Your task to perform on an android device: find which apps use the phone's location Image 0: 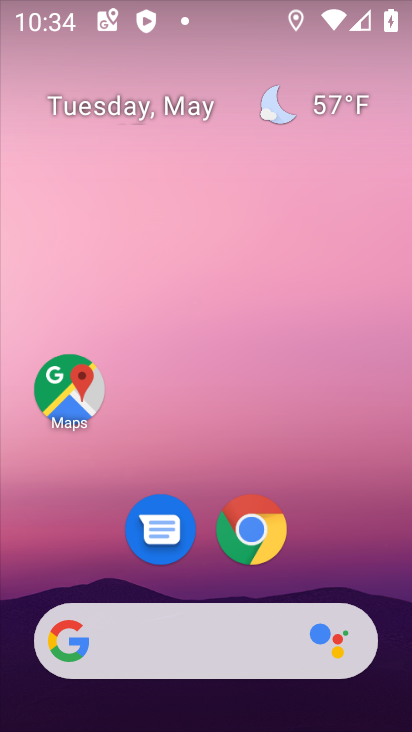
Step 0: drag from (216, 582) to (239, 40)
Your task to perform on an android device: find which apps use the phone's location Image 1: 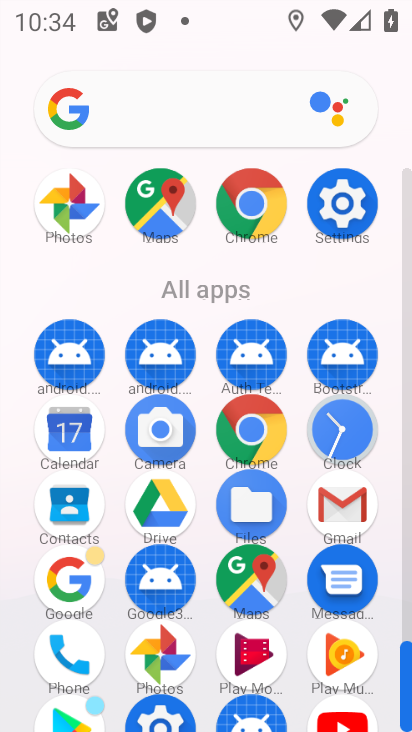
Step 1: click (354, 199)
Your task to perform on an android device: find which apps use the phone's location Image 2: 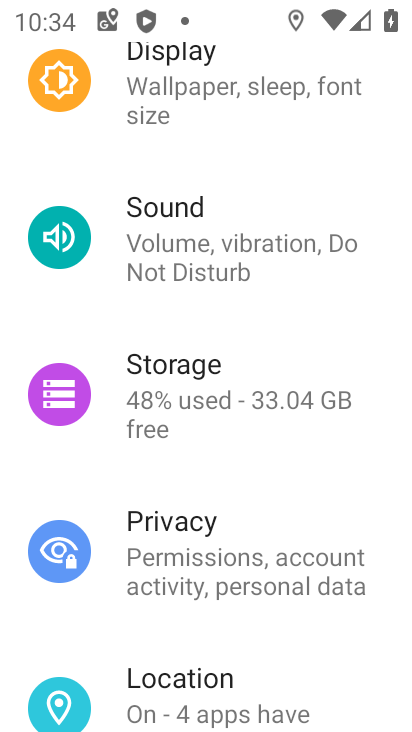
Step 2: click (175, 696)
Your task to perform on an android device: find which apps use the phone's location Image 3: 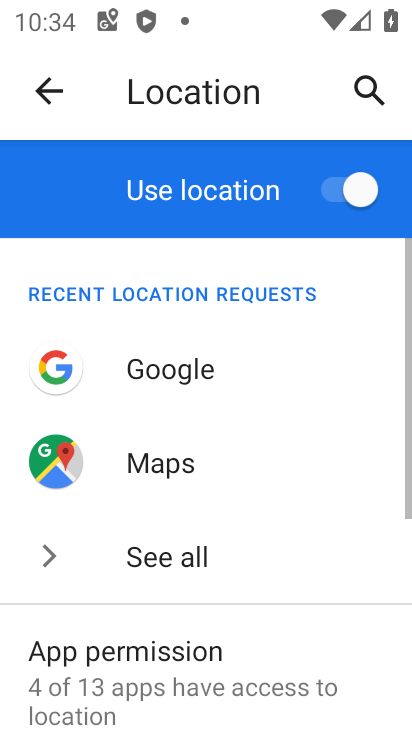
Step 3: click (136, 564)
Your task to perform on an android device: find which apps use the phone's location Image 4: 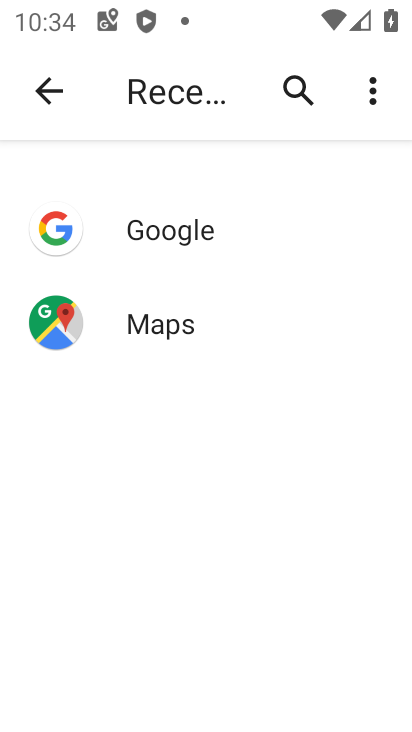
Step 4: task complete